Your task to perform on an android device: open app "ColorNote Notepad Notes" (install if not already installed) Image 0: 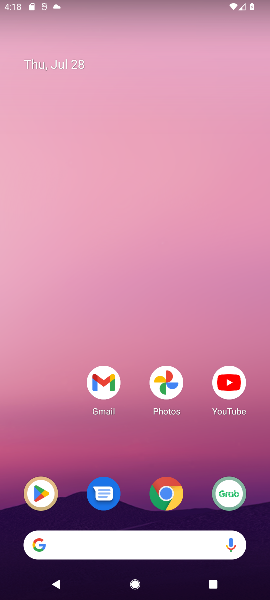
Step 0: click (24, 489)
Your task to perform on an android device: open app "ColorNote Notepad Notes" (install if not already installed) Image 1: 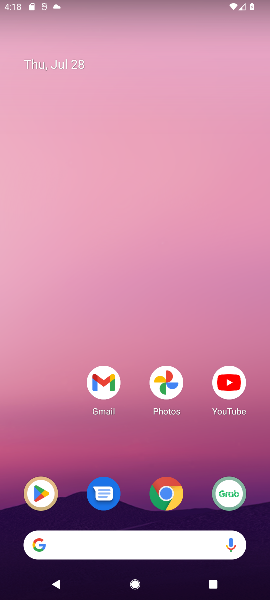
Step 1: click (24, 489)
Your task to perform on an android device: open app "ColorNote Notepad Notes" (install if not already installed) Image 2: 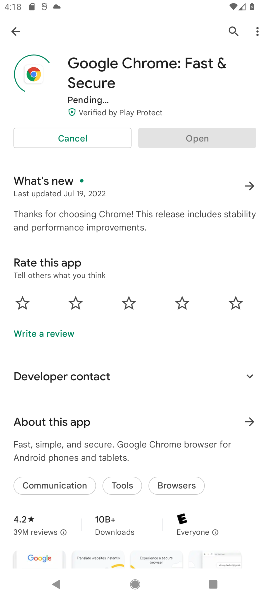
Step 2: click (57, 130)
Your task to perform on an android device: open app "ColorNote Notepad Notes" (install if not already installed) Image 3: 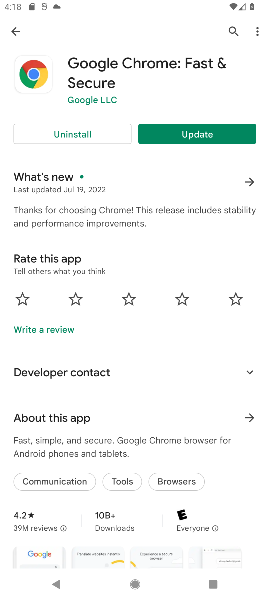
Step 3: click (9, 28)
Your task to perform on an android device: open app "ColorNote Notepad Notes" (install if not already installed) Image 4: 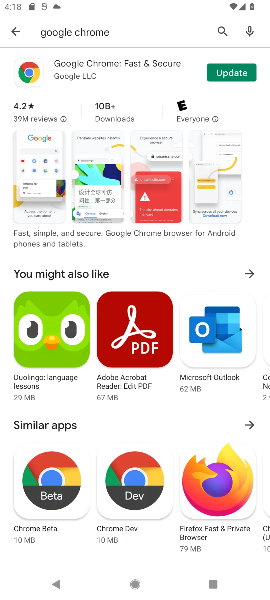
Step 4: click (223, 34)
Your task to perform on an android device: open app "ColorNote Notepad Notes" (install if not already installed) Image 5: 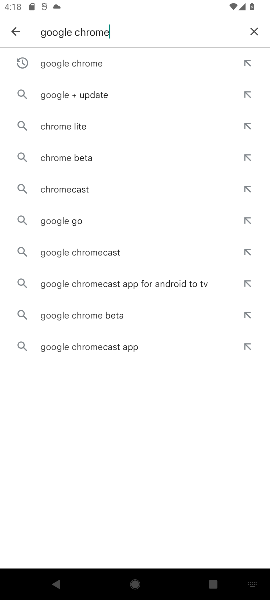
Step 5: type "ColorNote Notepad Notes"
Your task to perform on an android device: open app "ColorNote Notepad Notes" (install if not already installed) Image 6: 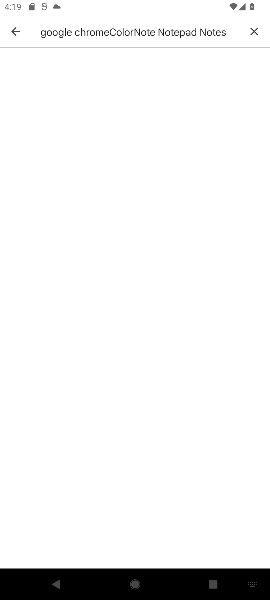
Step 6: drag from (142, 234) to (131, 112)
Your task to perform on an android device: open app "ColorNote Notepad Notes" (install if not already installed) Image 7: 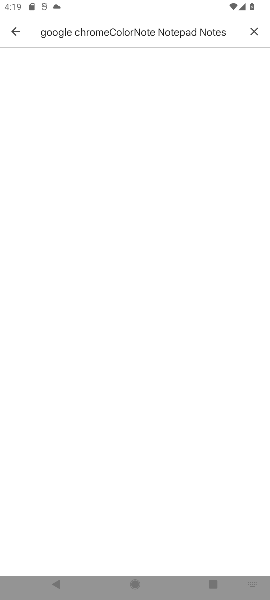
Step 7: click (116, 111)
Your task to perform on an android device: open app "ColorNote Notepad Notes" (install if not already installed) Image 8: 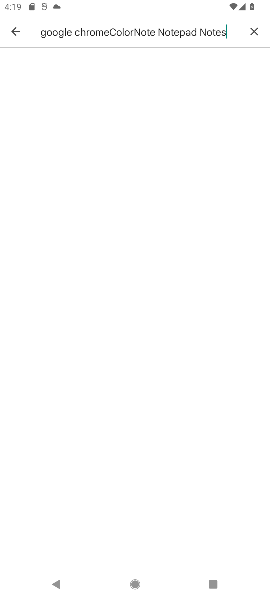
Step 8: click (247, 37)
Your task to perform on an android device: open app "ColorNote Notepad Notes" (install if not already installed) Image 9: 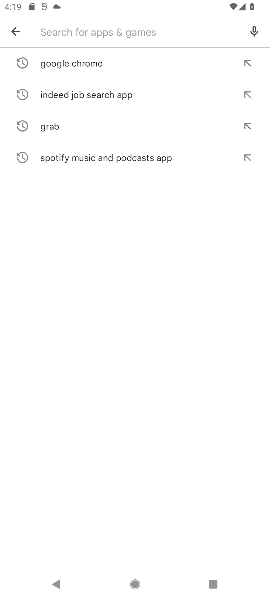
Step 9: type ""
Your task to perform on an android device: open app "ColorNote Notepad Notes" (install if not already installed) Image 10: 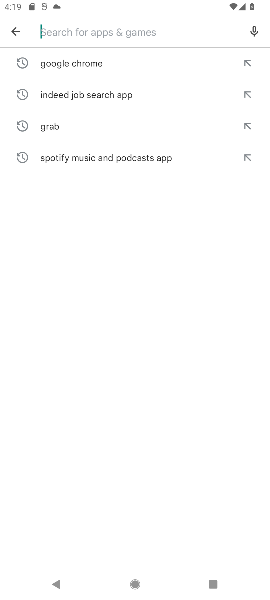
Step 10: type "ColorNote Notepad Notes"
Your task to perform on an android device: open app "ColorNote Notepad Notes" (install if not already installed) Image 11: 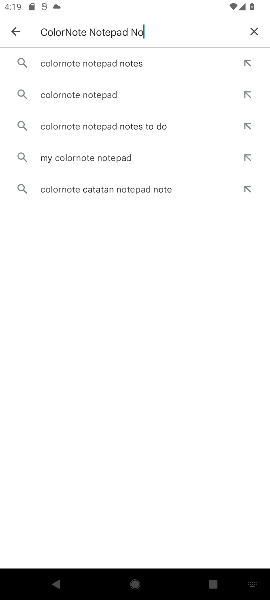
Step 11: type ""
Your task to perform on an android device: open app "ColorNote Notepad Notes" (install if not already installed) Image 12: 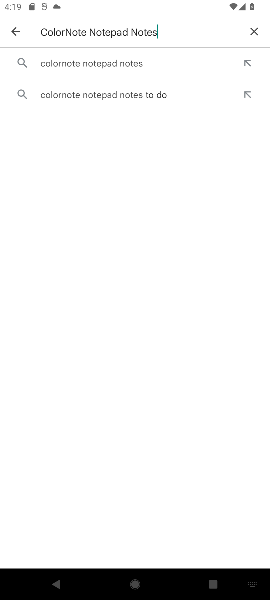
Step 12: click (91, 66)
Your task to perform on an android device: open app "ColorNote Notepad Notes" (install if not already installed) Image 13: 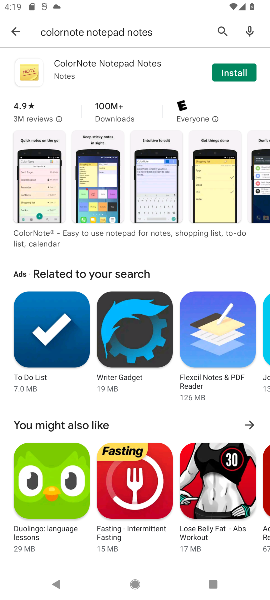
Step 13: click (72, 64)
Your task to perform on an android device: open app "ColorNote Notepad Notes" (install if not already installed) Image 14: 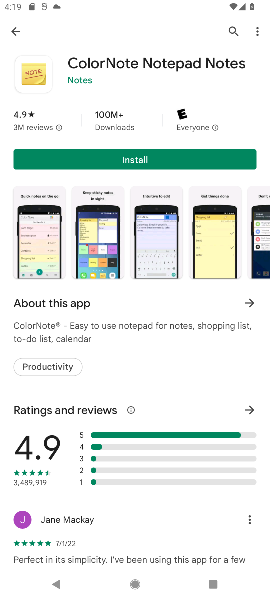
Step 14: click (122, 159)
Your task to perform on an android device: open app "ColorNote Notepad Notes" (install if not already installed) Image 15: 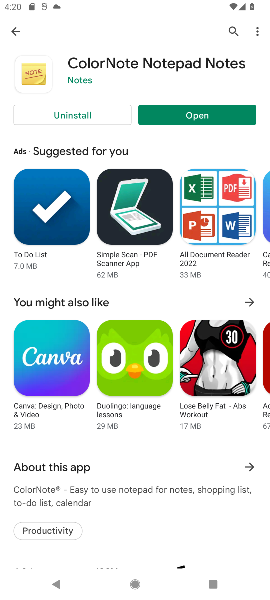
Step 15: click (173, 110)
Your task to perform on an android device: open app "ColorNote Notepad Notes" (install if not already installed) Image 16: 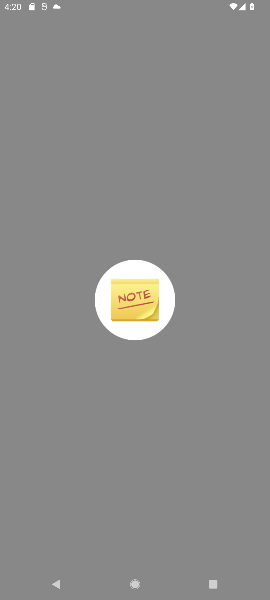
Step 16: task complete